Your task to perform on an android device: toggle notification dots Image 0: 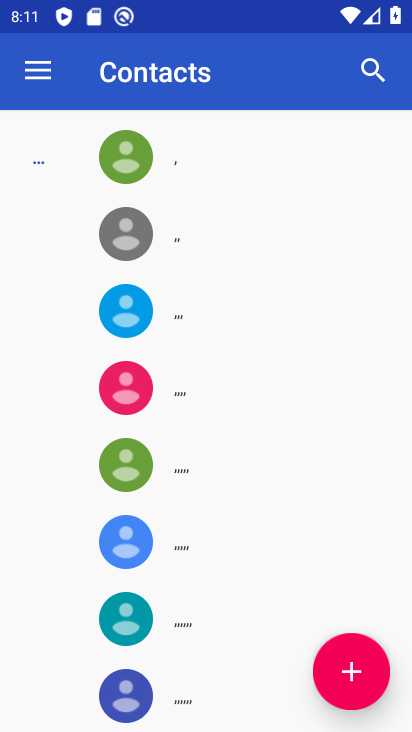
Step 0: press home button
Your task to perform on an android device: toggle notification dots Image 1: 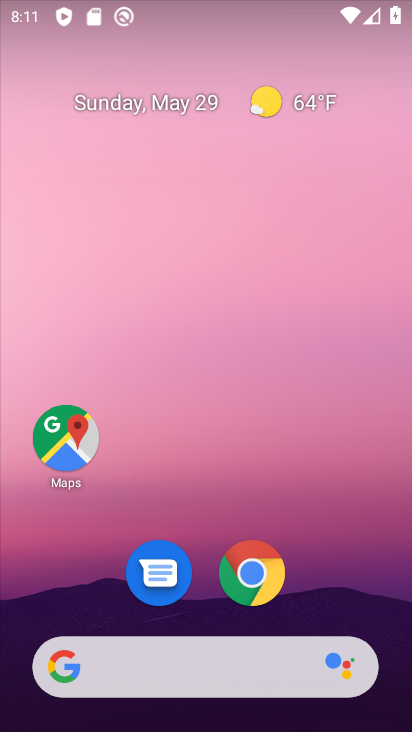
Step 1: drag from (39, 612) to (247, 88)
Your task to perform on an android device: toggle notification dots Image 2: 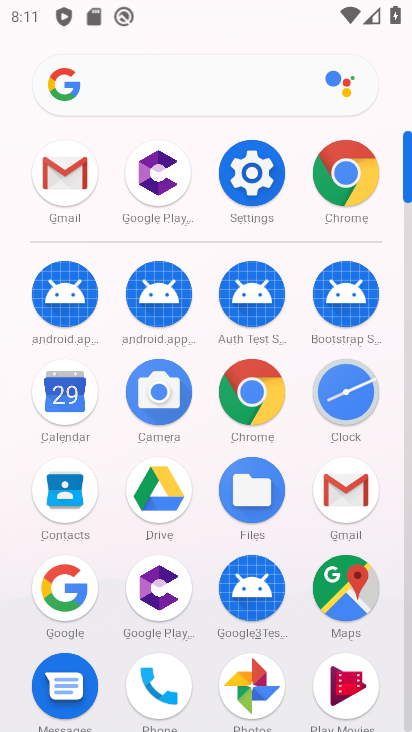
Step 2: drag from (152, 591) to (213, 311)
Your task to perform on an android device: toggle notification dots Image 3: 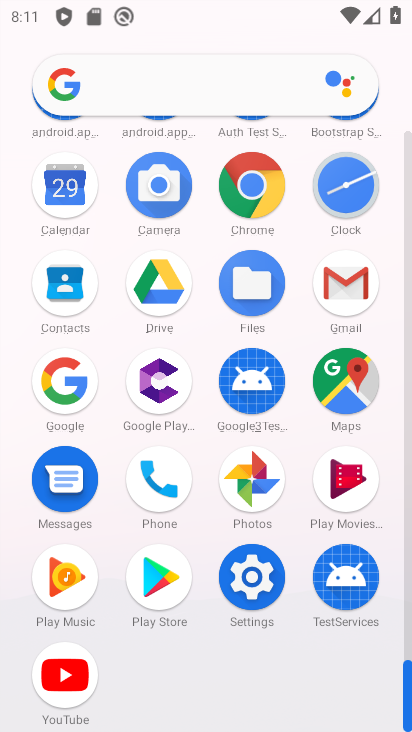
Step 3: click (254, 616)
Your task to perform on an android device: toggle notification dots Image 4: 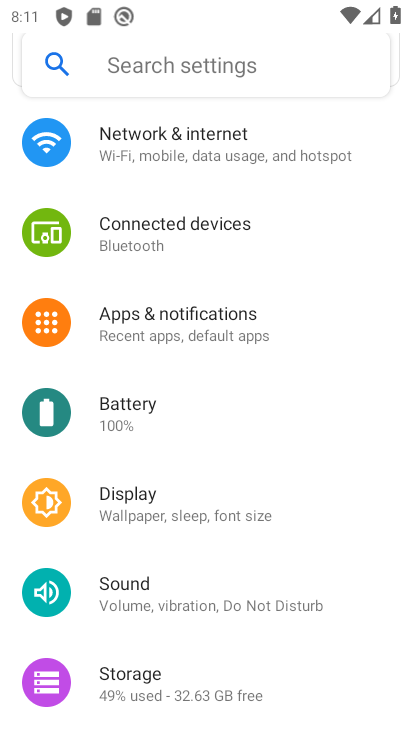
Step 4: click (214, 334)
Your task to perform on an android device: toggle notification dots Image 5: 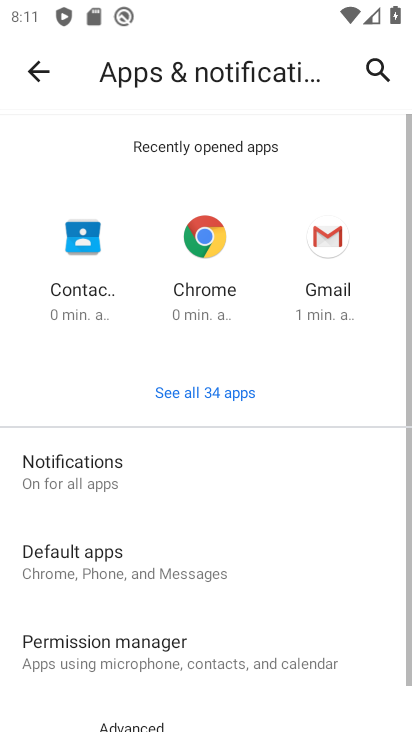
Step 5: click (205, 462)
Your task to perform on an android device: toggle notification dots Image 6: 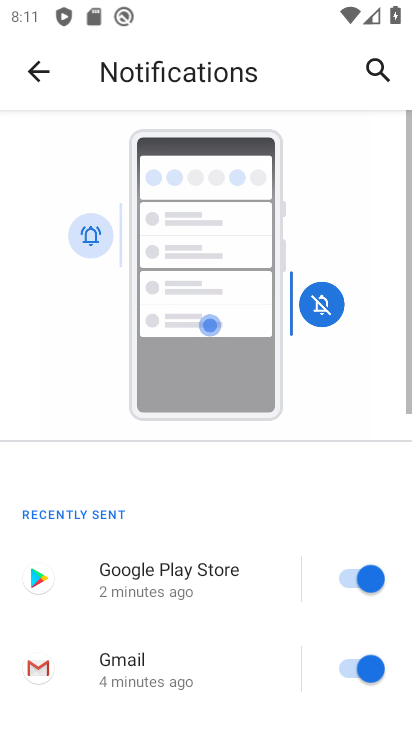
Step 6: drag from (188, 703) to (354, 66)
Your task to perform on an android device: toggle notification dots Image 7: 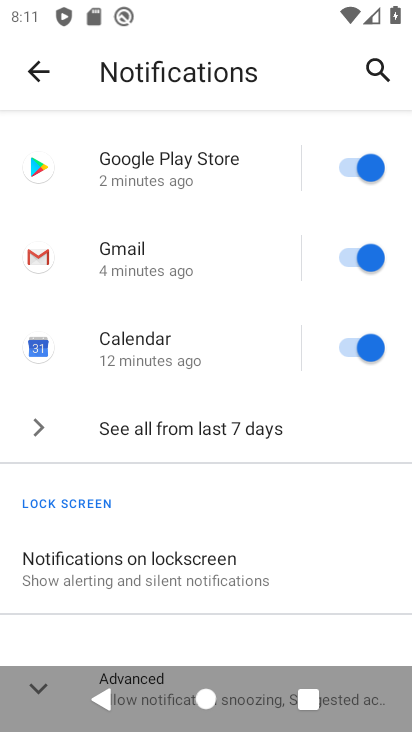
Step 7: click (185, 655)
Your task to perform on an android device: toggle notification dots Image 8: 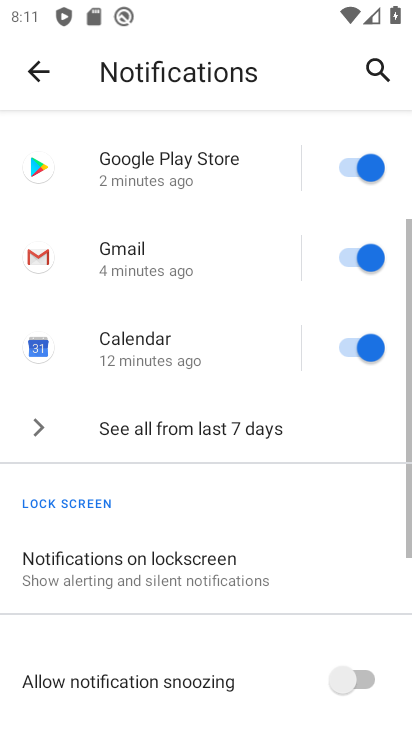
Step 8: drag from (197, 630) to (324, 116)
Your task to perform on an android device: toggle notification dots Image 9: 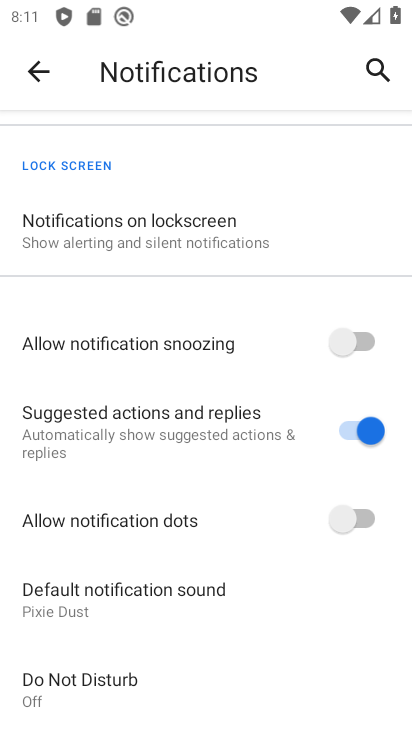
Step 9: click (376, 524)
Your task to perform on an android device: toggle notification dots Image 10: 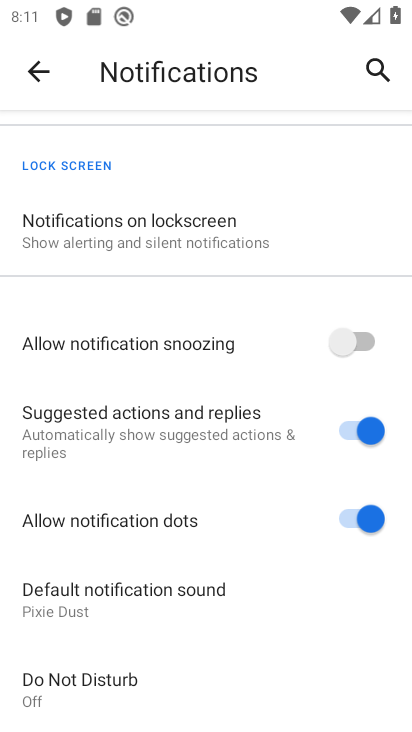
Step 10: task complete